Your task to perform on an android device: Go to accessibility settings Image 0: 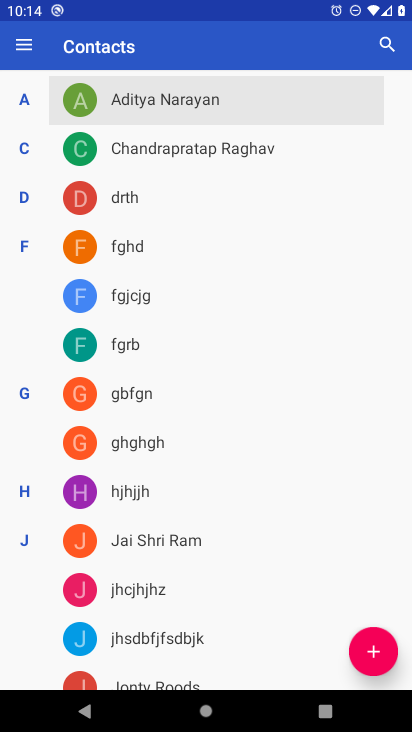
Step 0: press home button
Your task to perform on an android device: Go to accessibility settings Image 1: 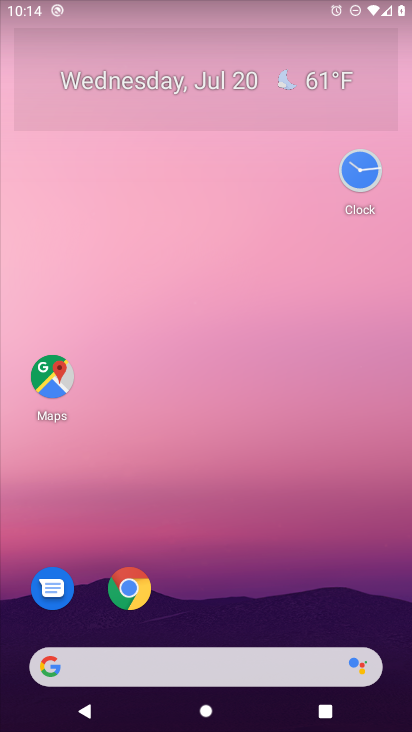
Step 1: drag from (50, 706) to (199, 315)
Your task to perform on an android device: Go to accessibility settings Image 2: 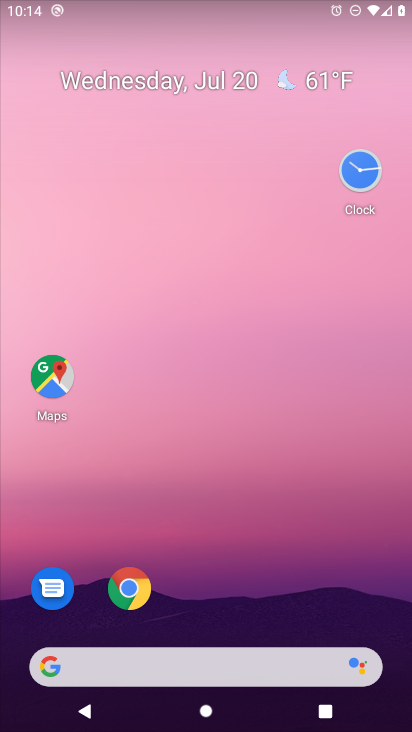
Step 2: drag from (59, 526) to (209, 16)
Your task to perform on an android device: Go to accessibility settings Image 3: 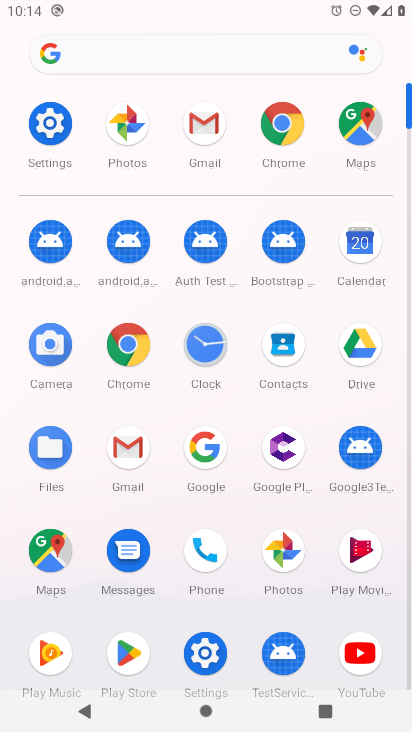
Step 3: click (223, 659)
Your task to perform on an android device: Go to accessibility settings Image 4: 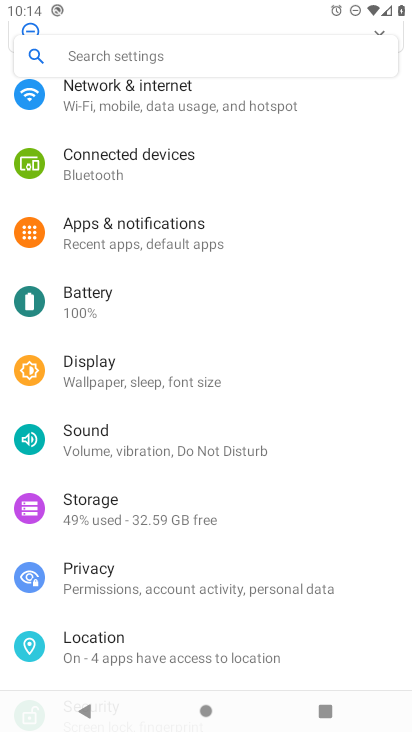
Step 4: click (345, 296)
Your task to perform on an android device: Go to accessibility settings Image 5: 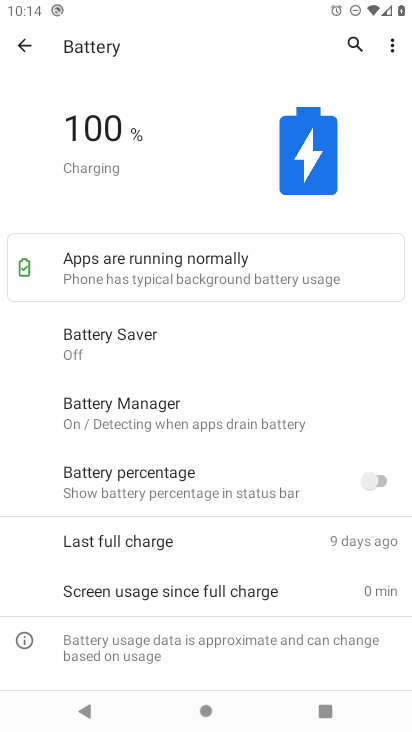
Step 5: click (22, 52)
Your task to perform on an android device: Go to accessibility settings Image 6: 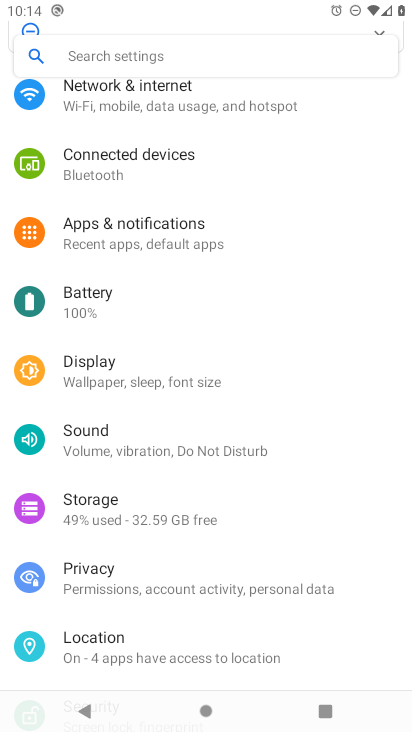
Step 6: drag from (301, 563) to (302, 261)
Your task to perform on an android device: Go to accessibility settings Image 7: 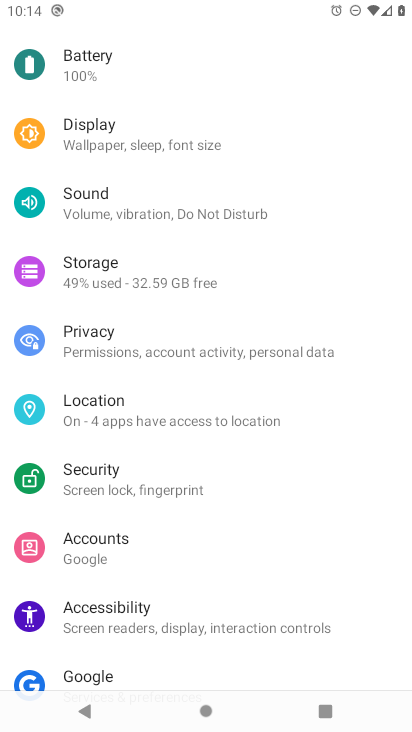
Step 7: click (95, 614)
Your task to perform on an android device: Go to accessibility settings Image 8: 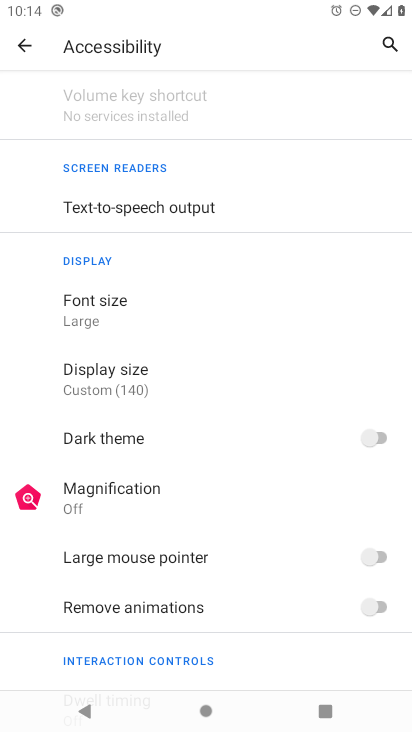
Step 8: task complete